Your task to perform on an android device: turn off picture-in-picture Image 0: 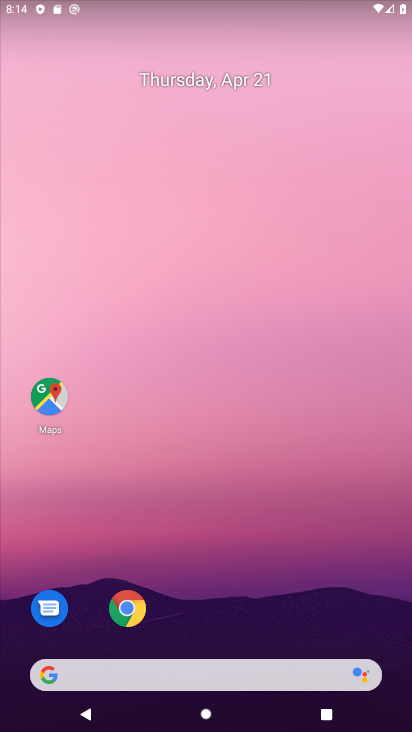
Step 0: click (126, 609)
Your task to perform on an android device: turn off picture-in-picture Image 1: 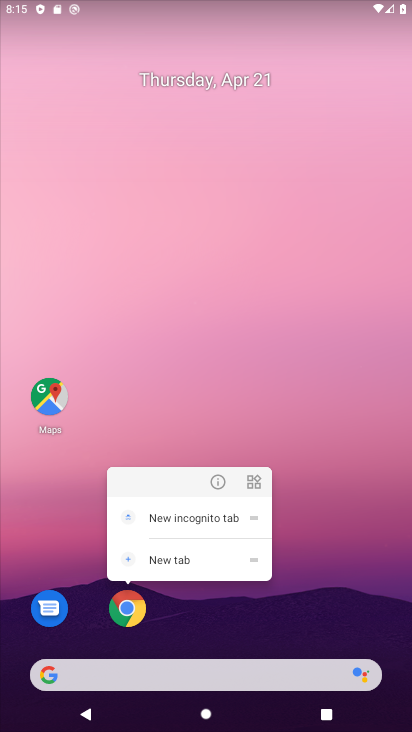
Step 1: click (222, 483)
Your task to perform on an android device: turn off picture-in-picture Image 2: 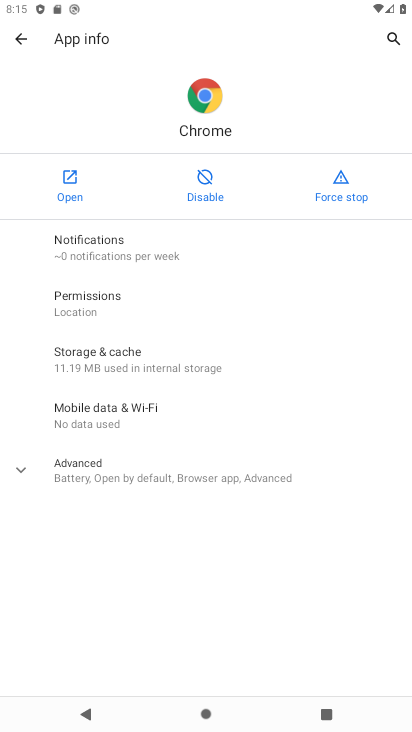
Step 2: click (95, 470)
Your task to perform on an android device: turn off picture-in-picture Image 3: 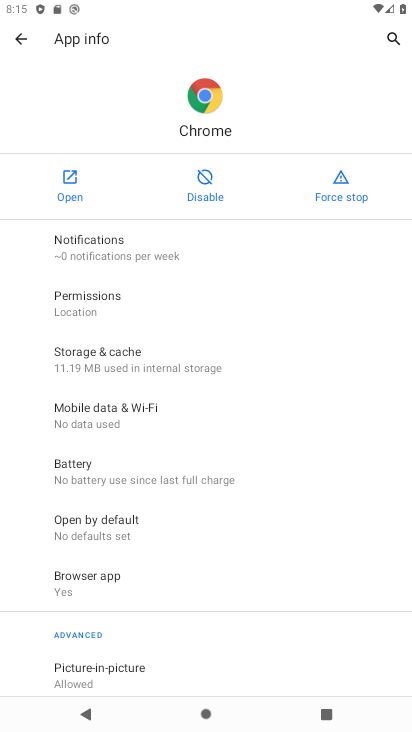
Step 3: click (120, 670)
Your task to perform on an android device: turn off picture-in-picture Image 4: 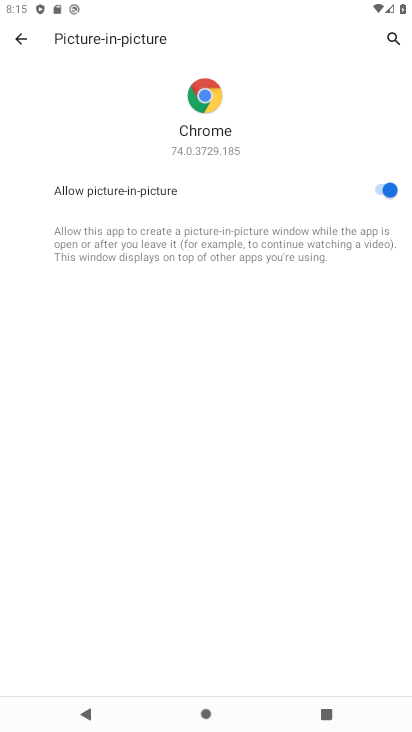
Step 4: click (387, 190)
Your task to perform on an android device: turn off picture-in-picture Image 5: 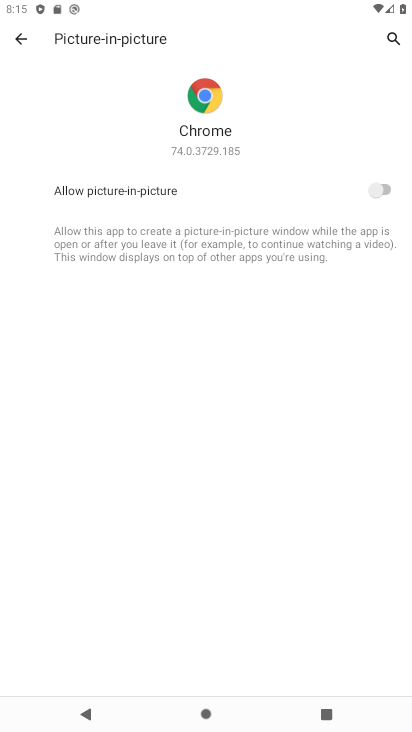
Step 5: task complete